Your task to perform on an android device: Open accessibility settings Image 0: 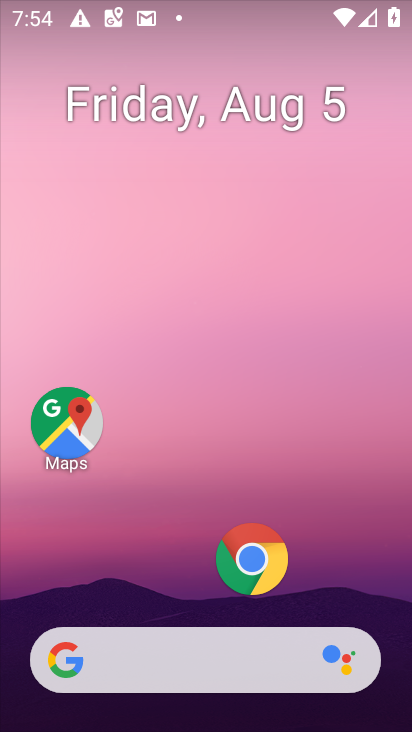
Step 0: drag from (170, 571) to (235, 0)
Your task to perform on an android device: Open accessibility settings Image 1: 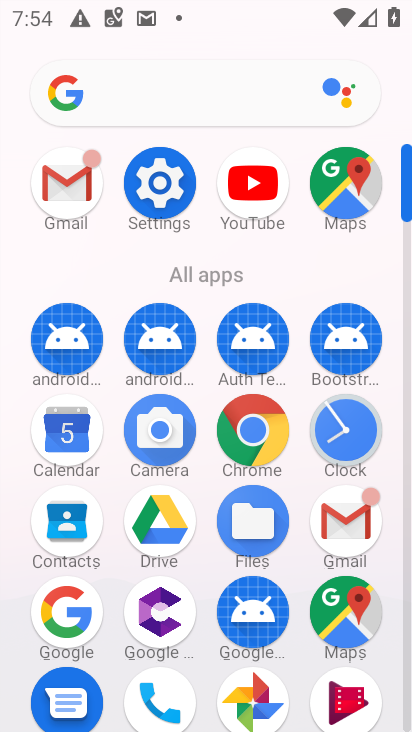
Step 1: click (162, 207)
Your task to perform on an android device: Open accessibility settings Image 2: 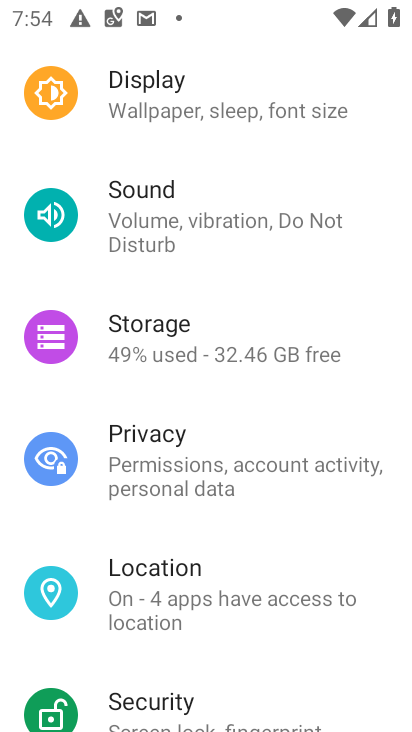
Step 2: drag from (177, 506) to (186, 383)
Your task to perform on an android device: Open accessibility settings Image 3: 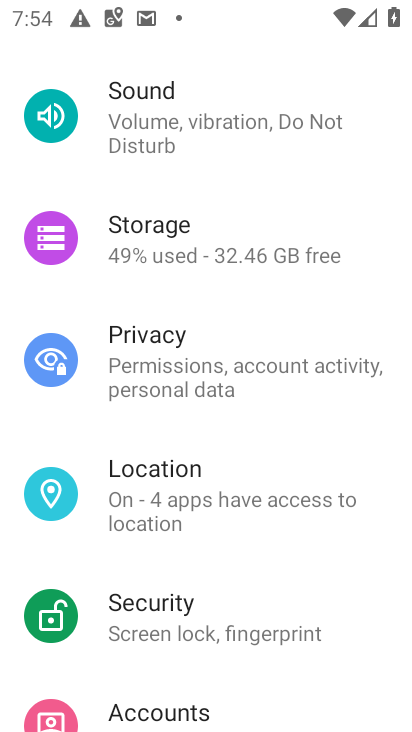
Step 3: drag from (184, 563) to (202, 364)
Your task to perform on an android device: Open accessibility settings Image 4: 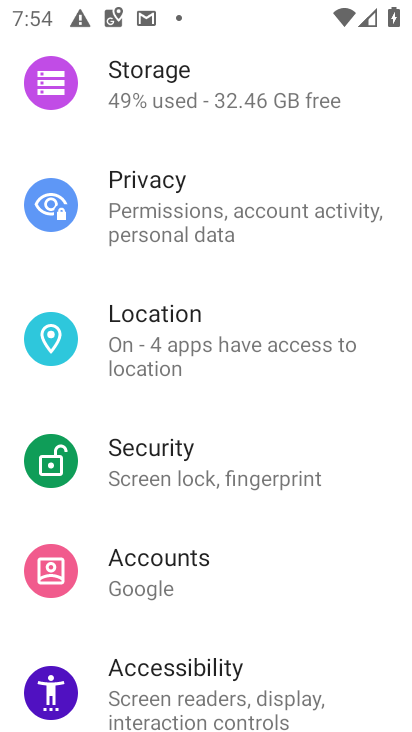
Step 4: click (180, 694)
Your task to perform on an android device: Open accessibility settings Image 5: 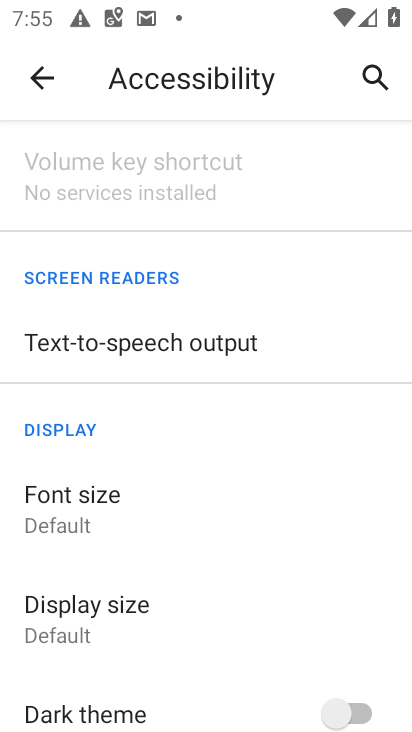
Step 5: task complete